Your task to perform on an android device: turn on sleep mode Image 0: 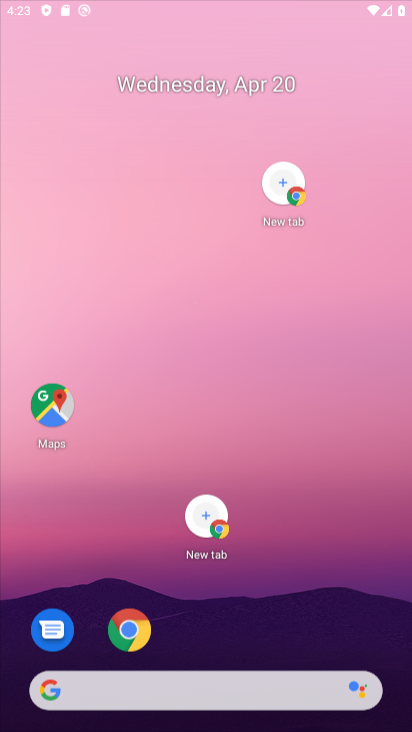
Step 0: click (204, 81)
Your task to perform on an android device: turn on sleep mode Image 1: 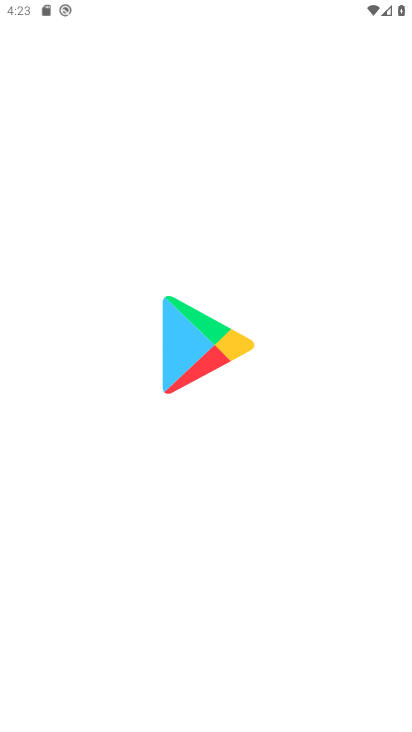
Step 1: task complete